Your task to perform on an android device: turn off smart reply in the gmail app Image 0: 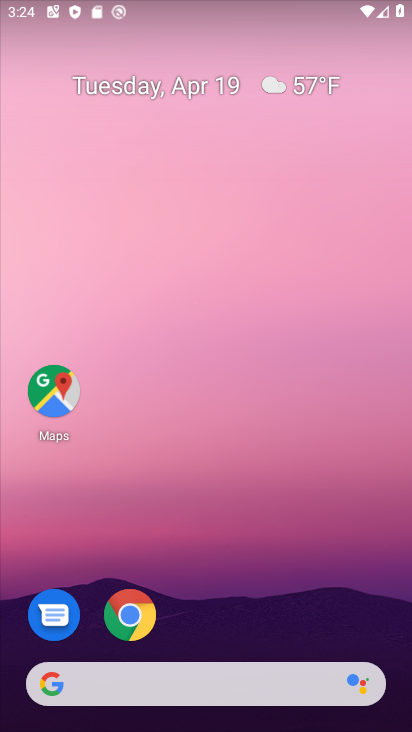
Step 0: drag from (242, 531) to (232, 238)
Your task to perform on an android device: turn off smart reply in the gmail app Image 1: 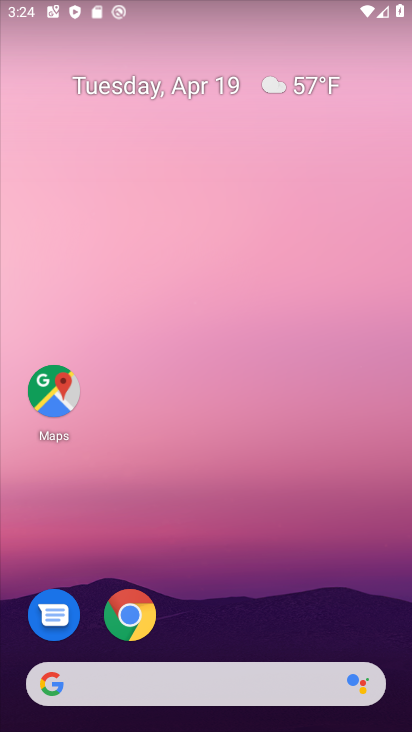
Step 1: drag from (202, 618) to (236, 201)
Your task to perform on an android device: turn off smart reply in the gmail app Image 2: 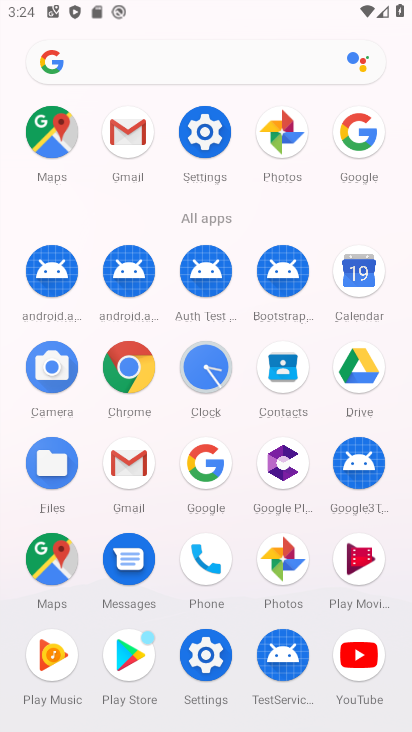
Step 2: click (116, 127)
Your task to perform on an android device: turn off smart reply in the gmail app Image 3: 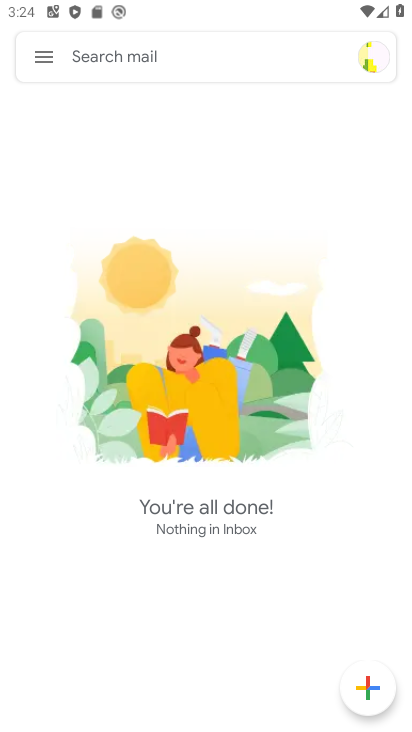
Step 3: click (40, 59)
Your task to perform on an android device: turn off smart reply in the gmail app Image 4: 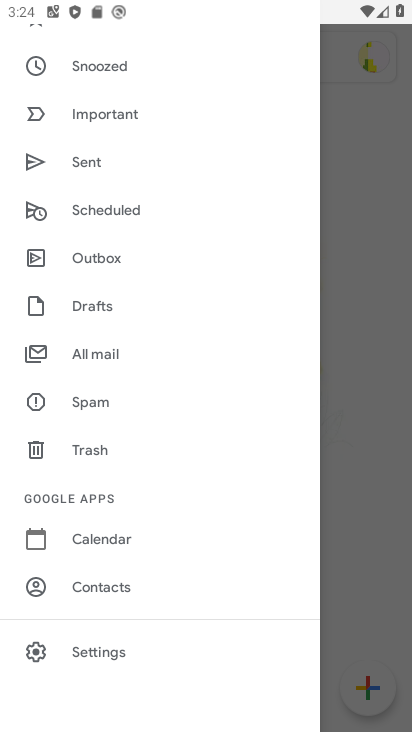
Step 4: click (104, 648)
Your task to perform on an android device: turn off smart reply in the gmail app Image 5: 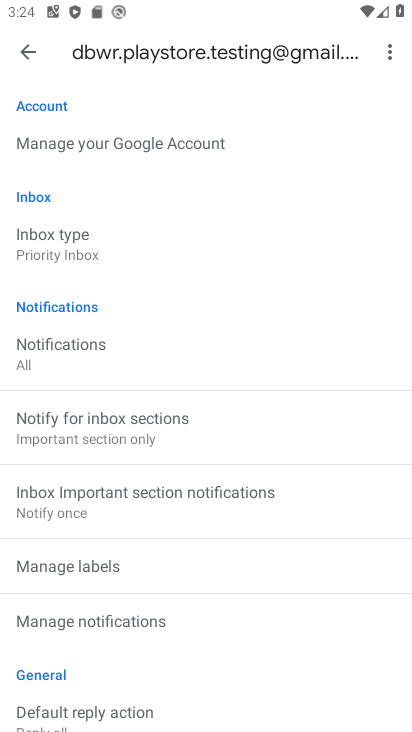
Step 5: drag from (192, 589) to (196, 266)
Your task to perform on an android device: turn off smart reply in the gmail app Image 6: 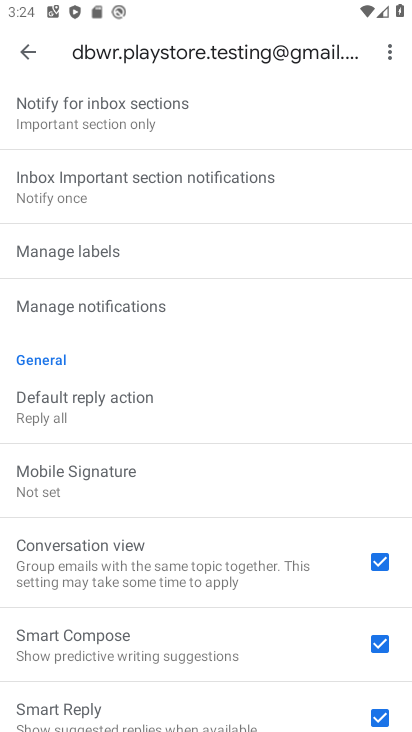
Step 6: drag from (224, 643) to (252, 295)
Your task to perform on an android device: turn off smart reply in the gmail app Image 7: 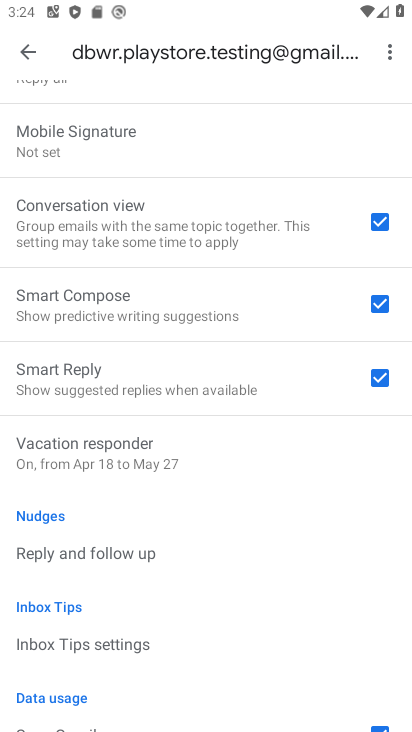
Step 7: click (384, 374)
Your task to perform on an android device: turn off smart reply in the gmail app Image 8: 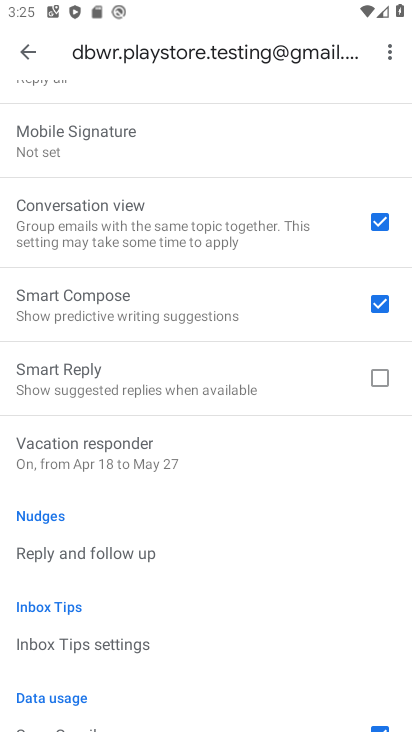
Step 8: task complete